Your task to perform on an android device: turn notification dots off Image 0: 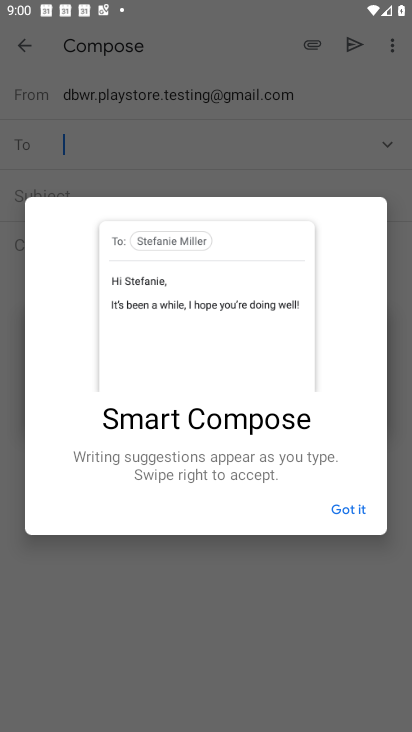
Step 0: press home button
Your task to perform on an android device: turn notification dots off Image 1: 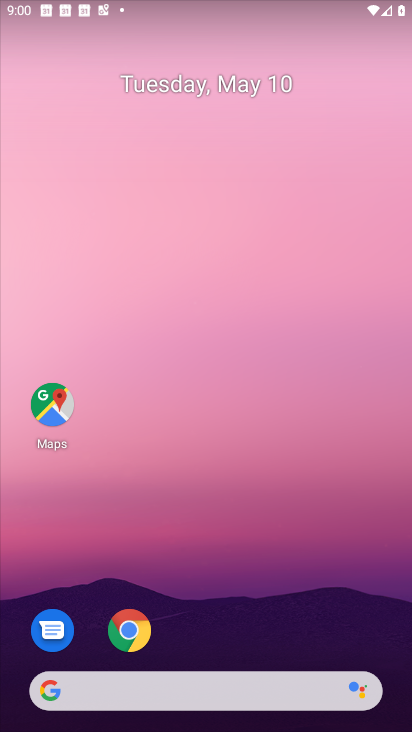
Step 1: drag from (263, 634) to (341, 138)
Your task to perform on an android device: turn notification dots off Image 2: 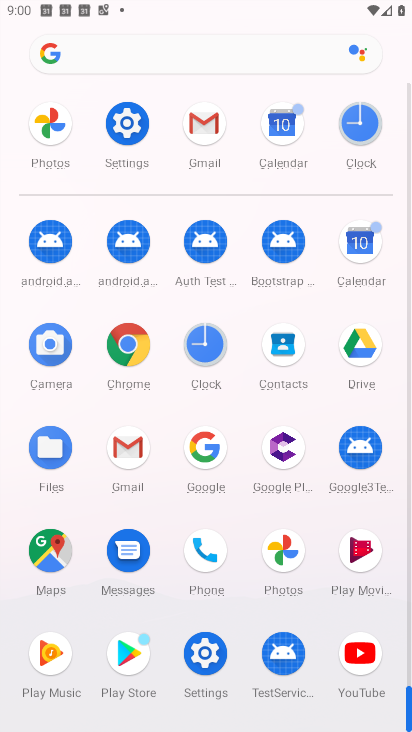
Step 2: click (128, 130)
Your task to perform on an android device: turn notification dots off Image 3: 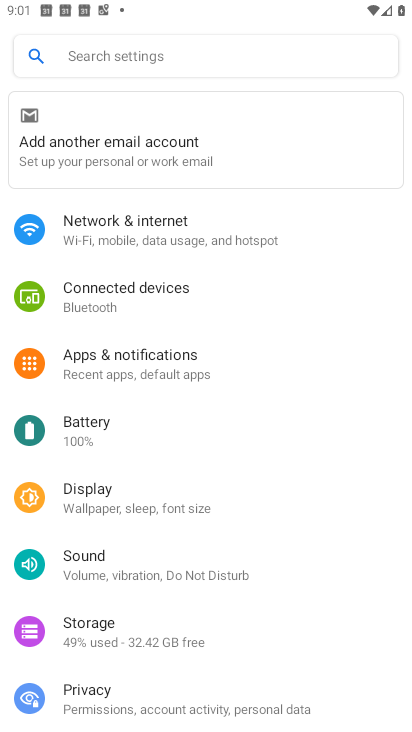
Step 3: click (169, 363)
Your task to perform on an android device: turn notification dots off Image 4: 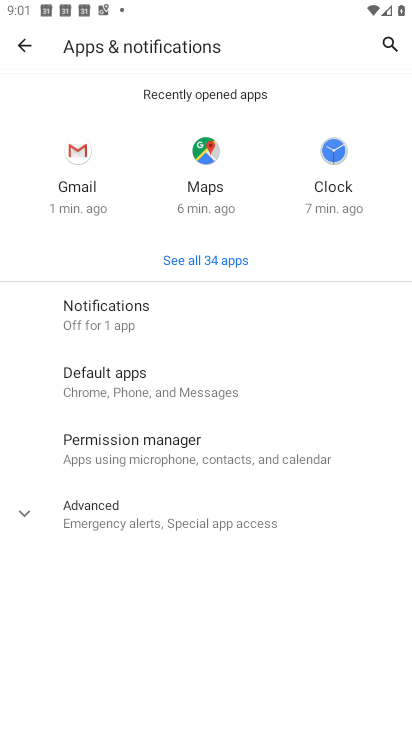
Step 4: click (155, 323)
Your task to perform on an android device: turn notification dots off Image 5: 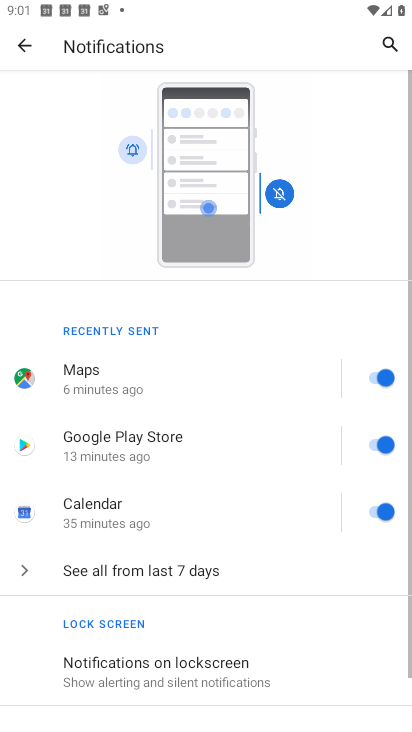
Step 5: drag from (243, 629) to (199, 18)
Your task to perform on an android device: turn notification dots off Image 6: 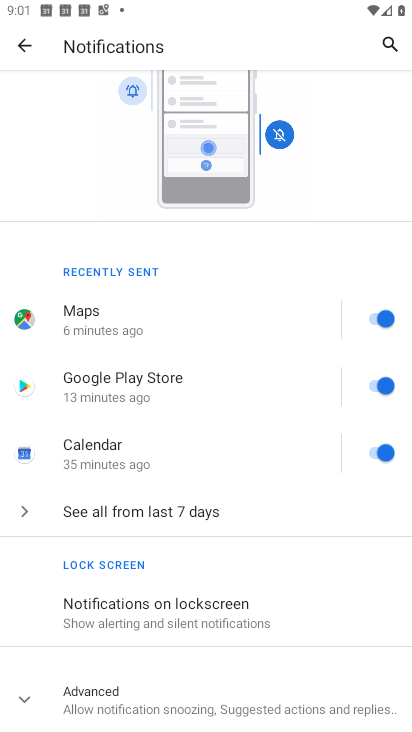
Step 6: click (259, 708)
Your task to perform on an android device: turn notification dots off Image 7: 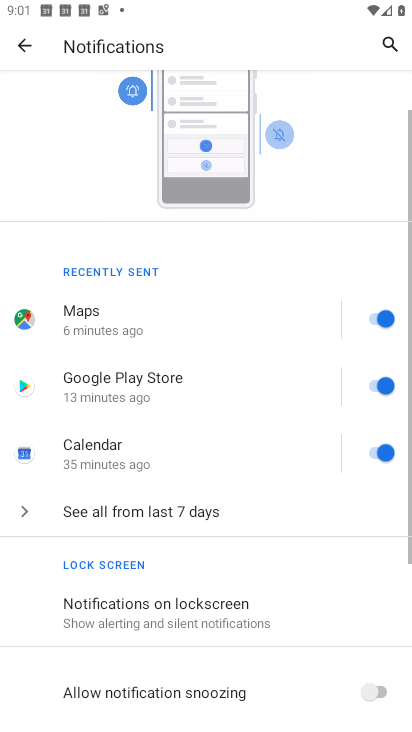
Step 7: drag from (335, 673) to (322, 93)
Your task to perform on an android device: turn notification dots off Image 8: 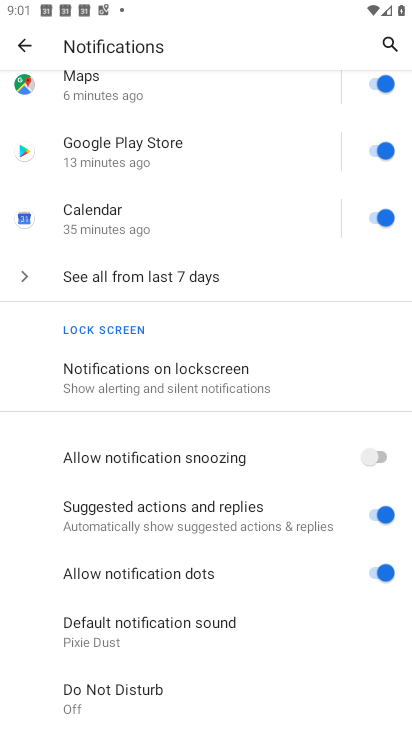
Step 8: click (382, 574)
Your task to perform on an android device: turn notification dots off Image 9: 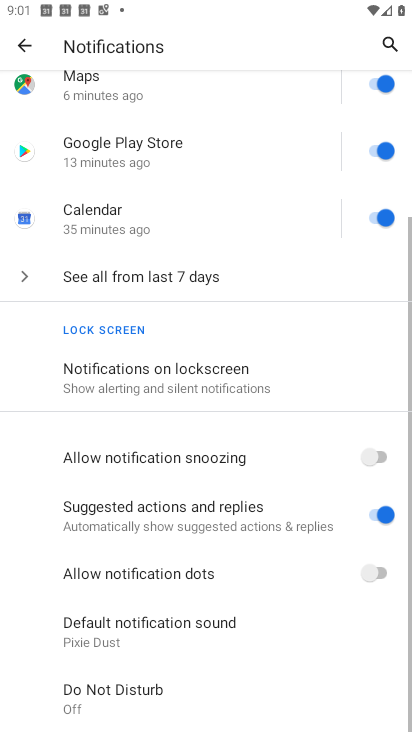
Step 9: task complete